Your task to perform on an android device: Go to battery settings Image 0: 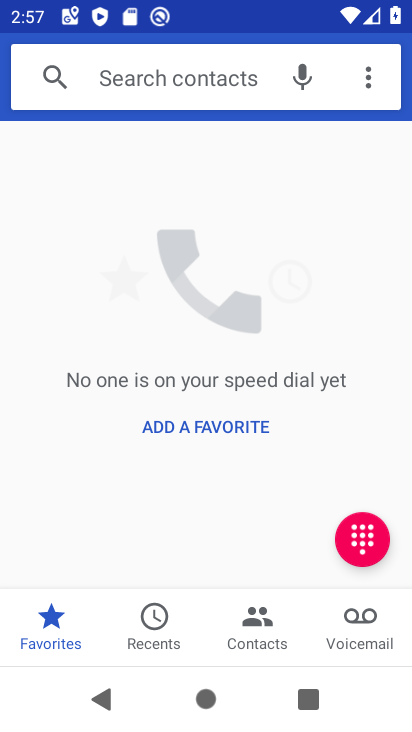
Step 0: press home button
Your task to perform on an android device: Go to battery settings Image 1: 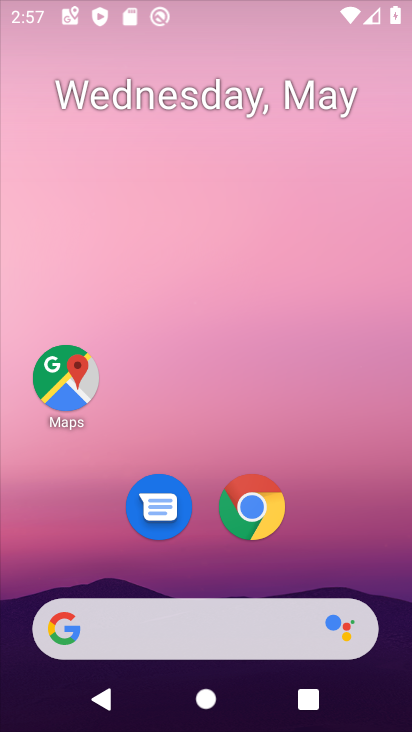
Step 1: drag from (194, 543) to (245, 34)
Your task to perform on an android device: Go to battery settings Image 2: 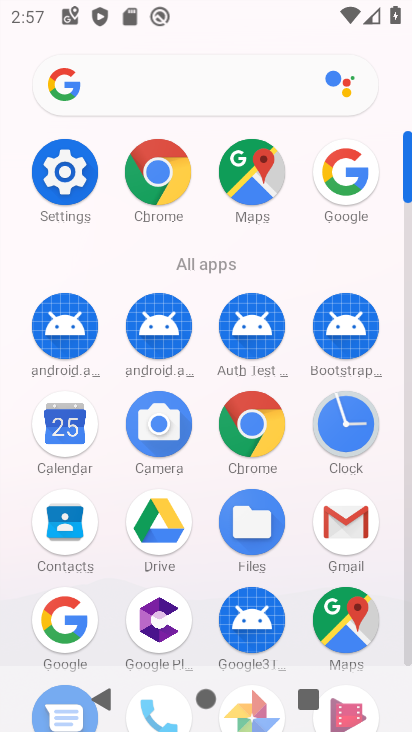
Step 2: click (67, 169)
Your task to perform on an android device: Go to battery settings Image 3: 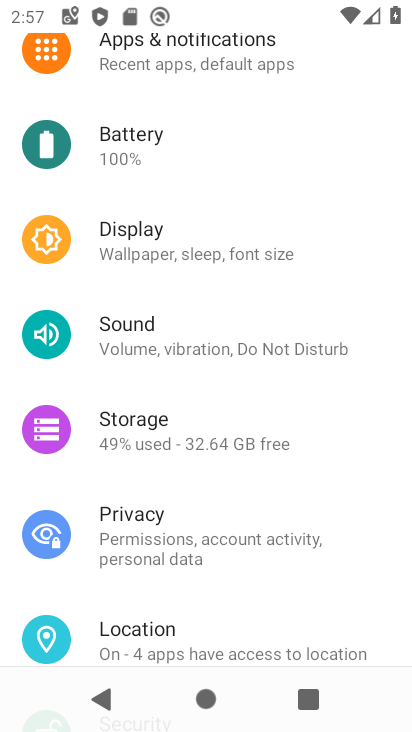
Step 3: click (154, 151)
Your task to perform on an android device: Go to battery settings Image 4: 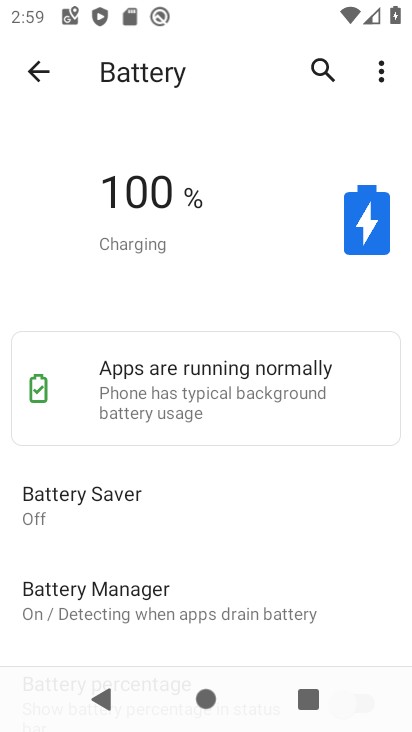
Step 4: task complete